Your task to perform on an android device: Open Google Image 0: 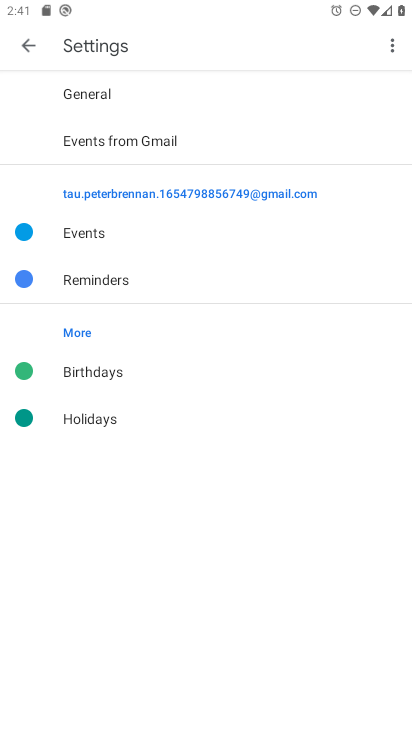
Step 0: press home button
Your task to perform on an android device: Open Google Image 1: 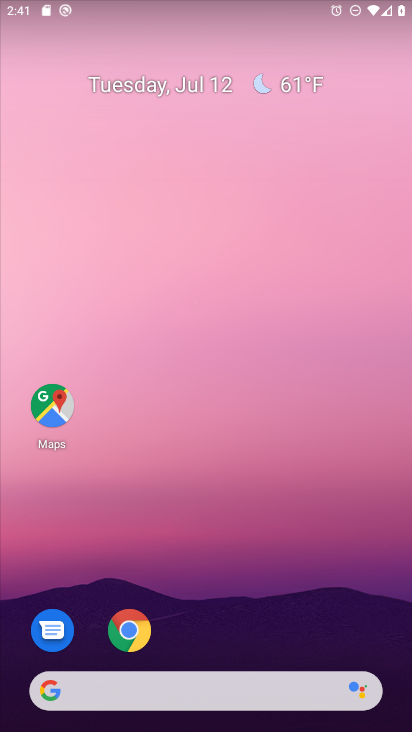
Step 1: drag from (217, 626) to (220, 241)
Your task to perform on an android device: Open Google Image 2: 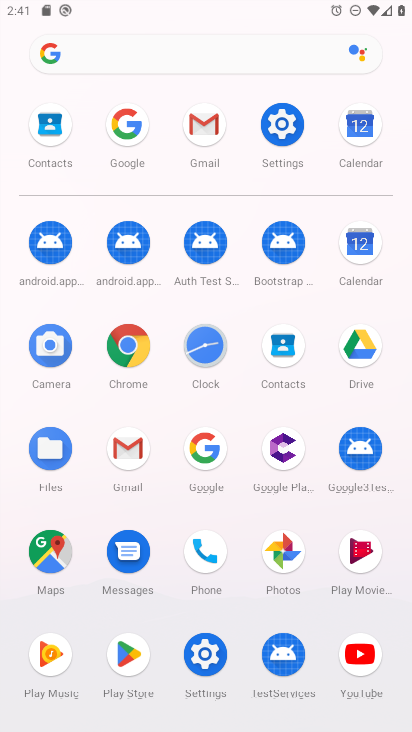
Step 2: click (106, 132)
Your task to perform on an android device: Open Google Image 3: 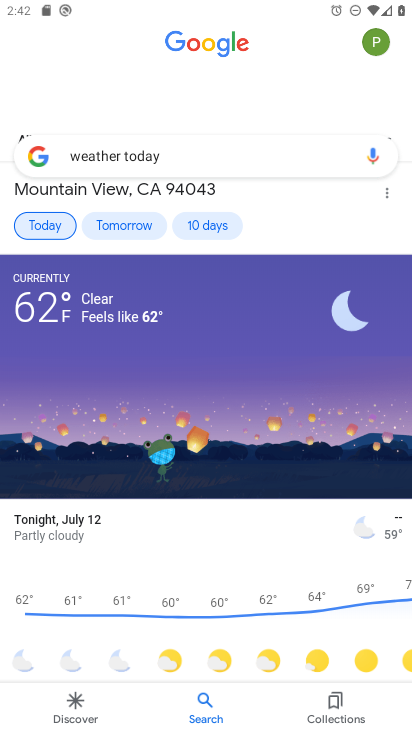
Step 3: task complete